Your task to perform on an android device: Go to notification settings Image 0: 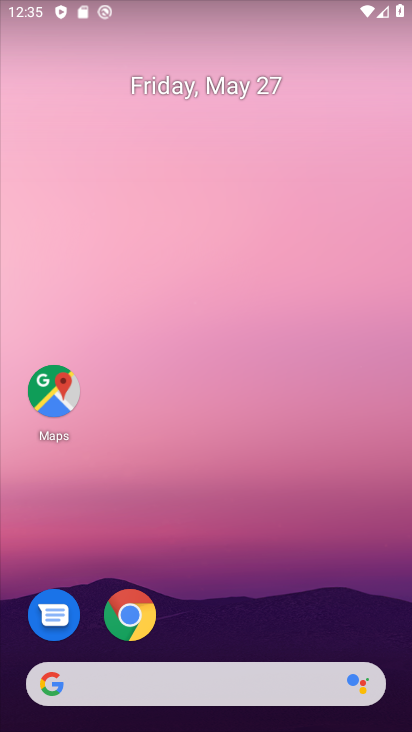
Step 0: drag from (250, 654) to (226, 107)
Your task to perform on an android device: Go to notification settings Image 1: 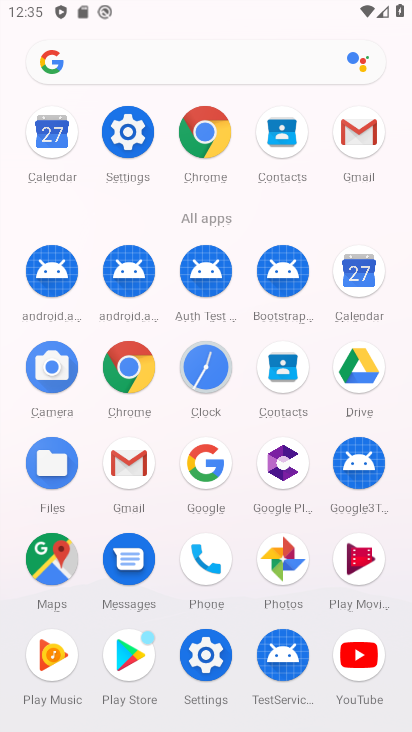
Step 1: click (209, 659)
Your task to perform on an android device: Go to notification settings Image 2: 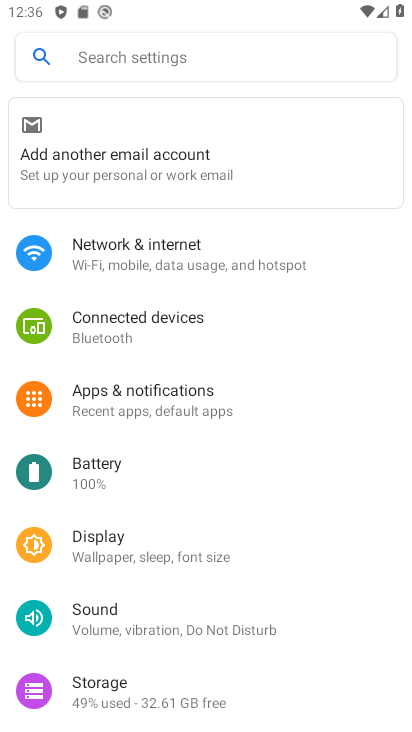
Step 2: click (185, 399)
Your task to perform on an android device: Go to notification settings Image 3: 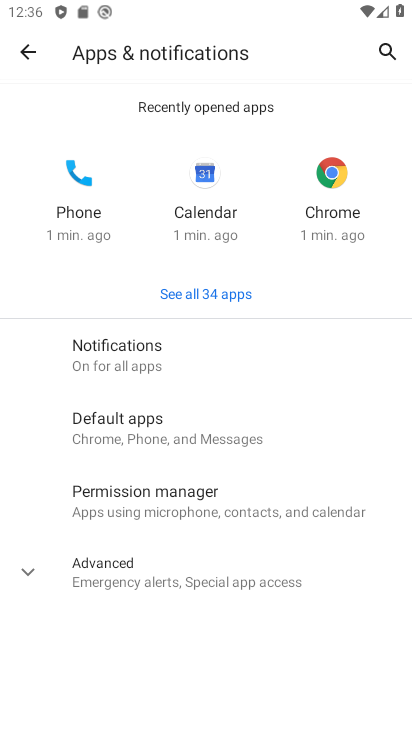
Step 3: click (204, 371)
Your task to perform on an android device: Go to notification settings Image 4: 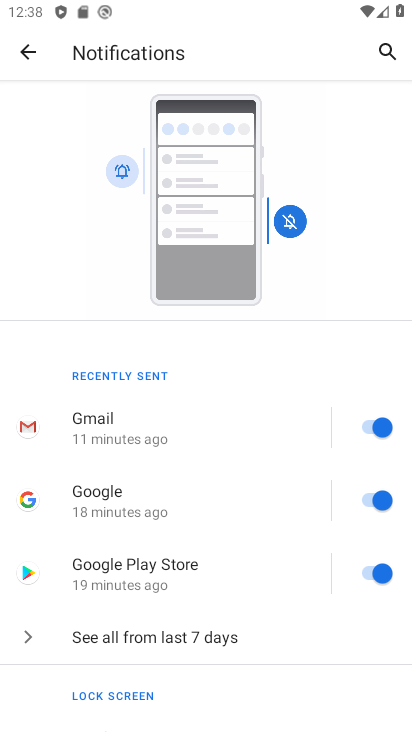
Step 4: task complete